Your task to perform on an android device: Open calendar and show me the third week of next month Image 0: 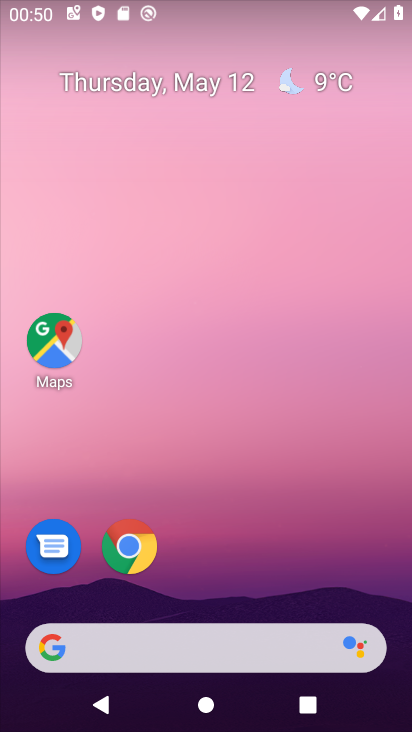
Step 0: drag from (167, 490) to (169, 172)
Your task to perform on an android device: Open calendar and show me the third week of next month Image 1: 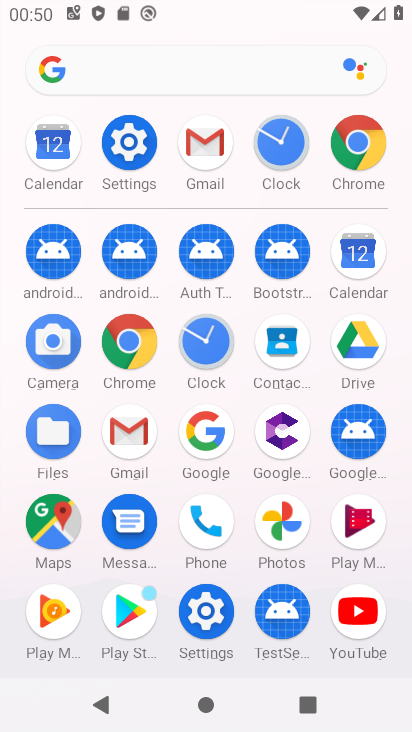
Step 1: click (358, 255)
Your task to perform on an android device: Open calendar and show me the third week of next month Image 2: 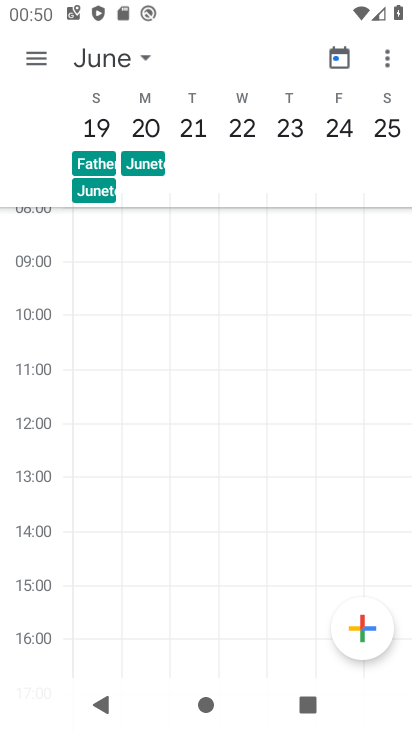
Step 2: click (127, 62)
Your task to perform on an android device: Open calendar and show me the third week of next month Image 3: 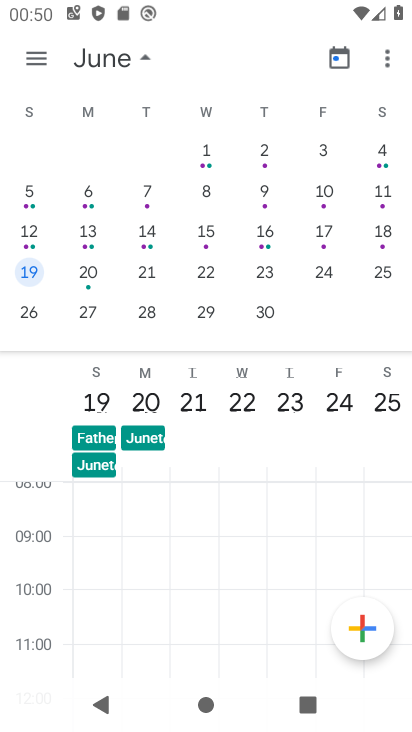
Step 3: click (211, 234)
Your task to perform on an android device: Open calendar and show me the third week of next month Image 4: 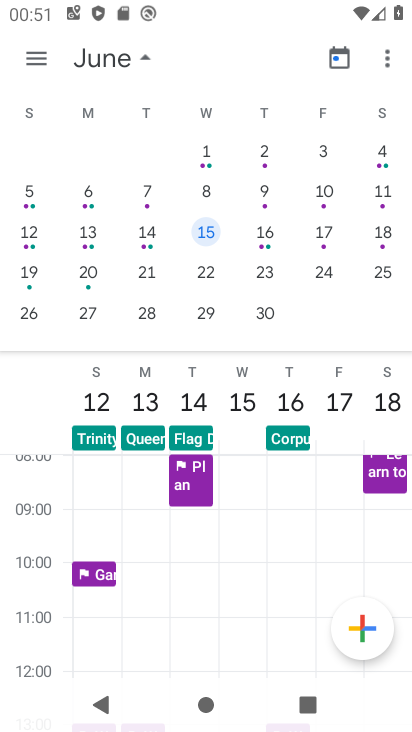
Step 4: click (34, 54)
Your task to perform on an android device: Open calendar and show me the third week of next month Image 5: 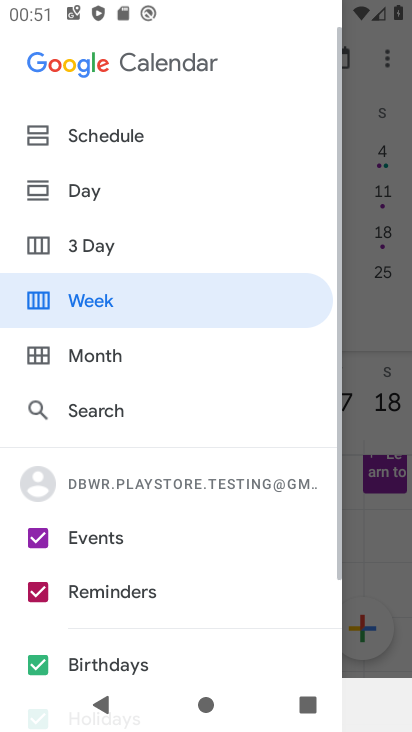
Step 5: click (122, 298)
Your task to perform on an android device: Open calendar and show me the third week of next month Image 6: 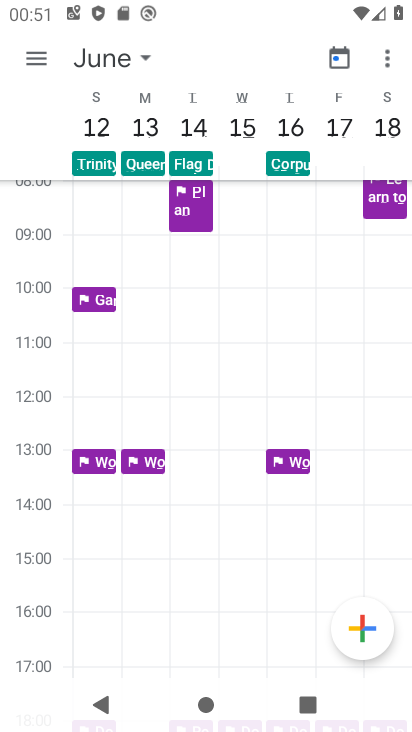
Step 6: task complete